Your task to perform on an android device: turn on priority inbox in the gmail app Image 0: 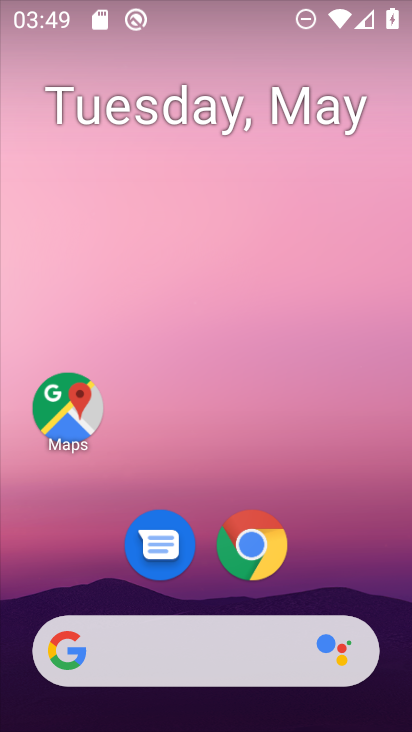
Step 0: drag from (392, 600) to (313, 102)
Your task to perform on an android device: turn on priority inbox in the gmail app Image 1: 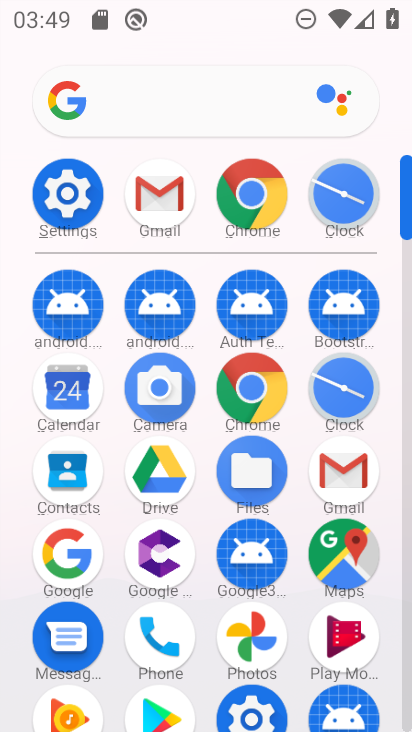
Step 1: click (347, 475)
Your task to perform on an android device: turn on priority inbox in the gmail app Image 2: 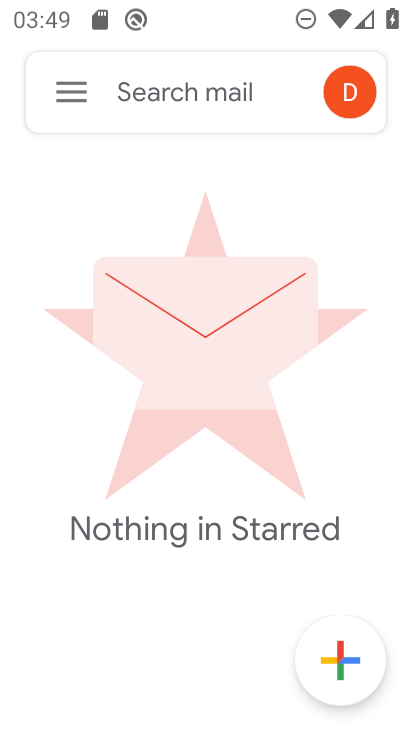
Step 2: click (79, 105)
Your task to perform on an android device: turn on priority inbox in the gmail app Image 3: 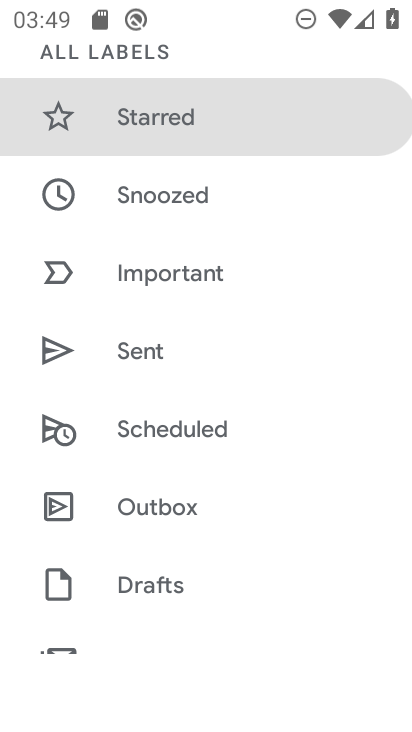
Step 3: drag from (257, 559) to (212, 233)
Your task to perform on an android device: turn on priority inbox in the gmail app Image 4: 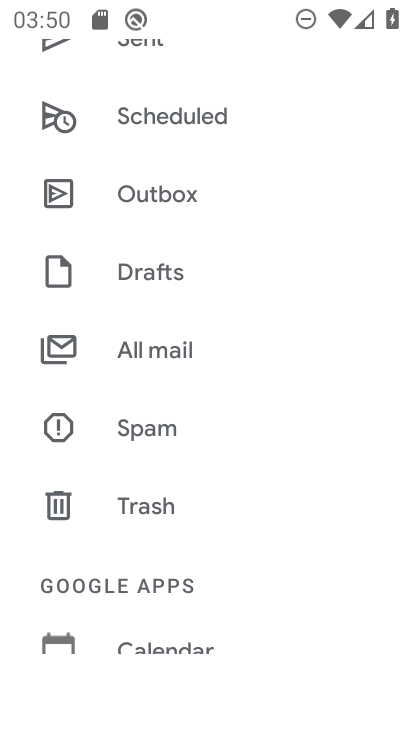
Step 4: drag from (248, 619) to (257, 227)
Your task to perform on an android device: turn on priority inbox in the gmail app Image 5: 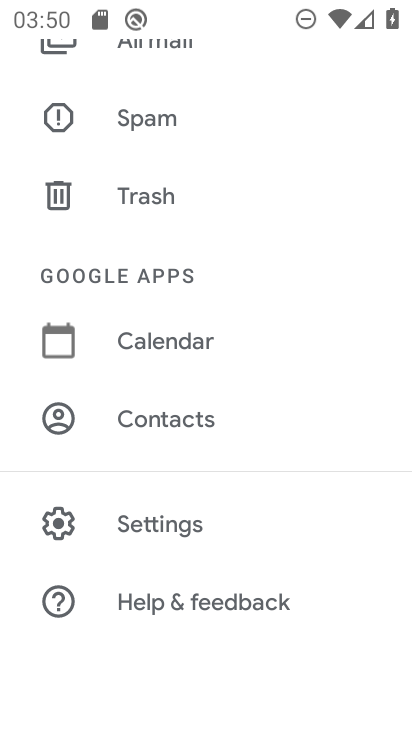
Step 5: click (163, 529)
Your task to perform on an android device: turn on priority inbox in the gmail app Image 6: 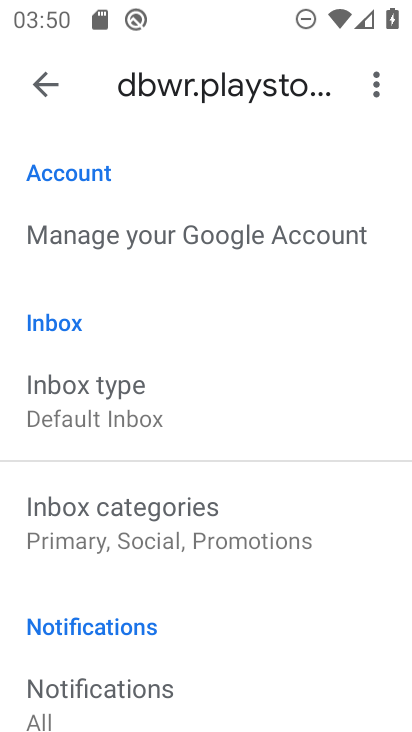
Step 6: drag from (280, 601) to (280, 302)
Your task to perform on an android device: turn on priority inbox in the gmail app Image 7: 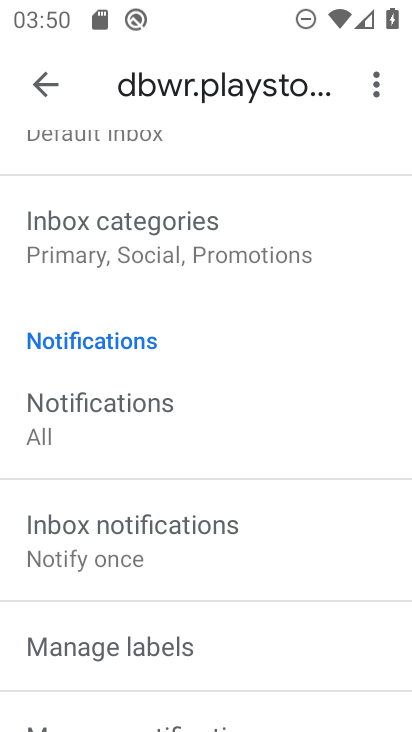
Step 7: drag from (141, 248) to (177, 419)
Your task to perform on an android device: turn on priority inbox in the gmail app Image 8: 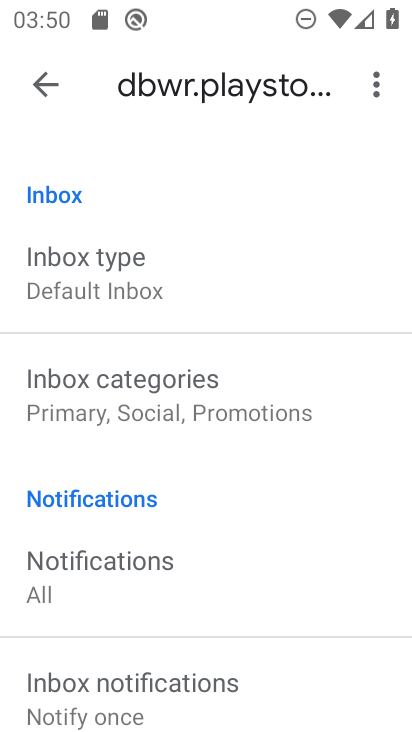
Step 8: click (71, 270)
Your task to perform on an android device: turn on priority inbox in the gmail app Image 9: 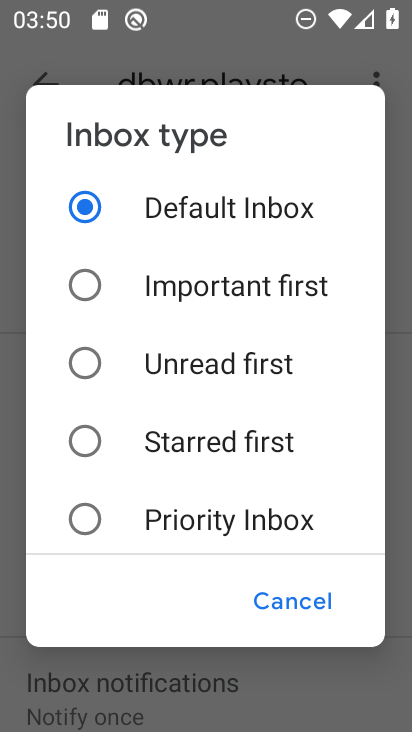
Step 9: click (77, 519)
Your task to perform on an android device: turn on priority inbox in the gmail app Image 10: 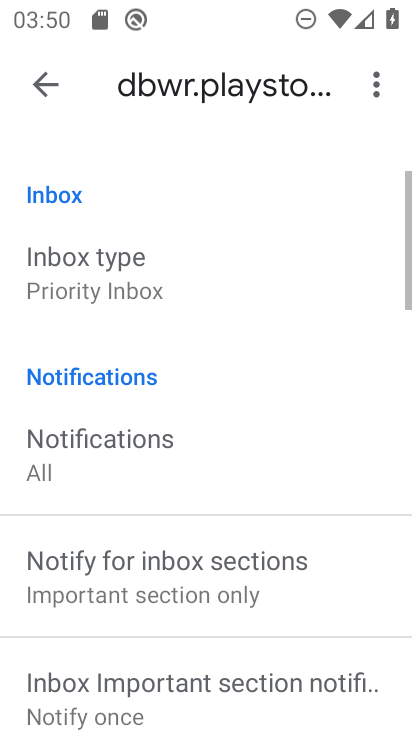
Step 10: task complete